Your task to perform on an android device: turn off data saver in the chrome app Image 0: 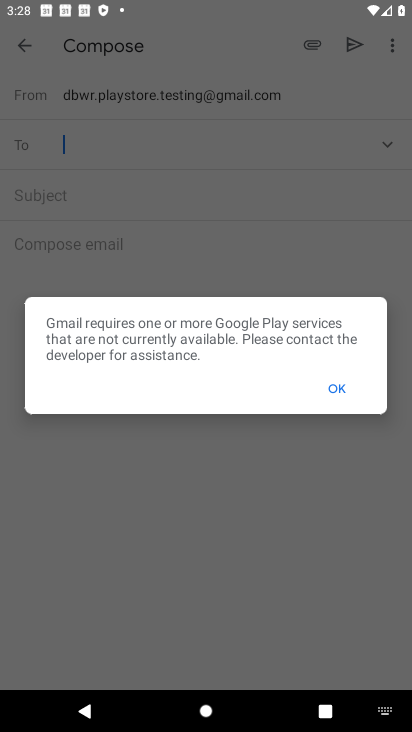
Step 0: task complete